Your task to perform on an android device: toggle show notifications on the lock screen Image 0: 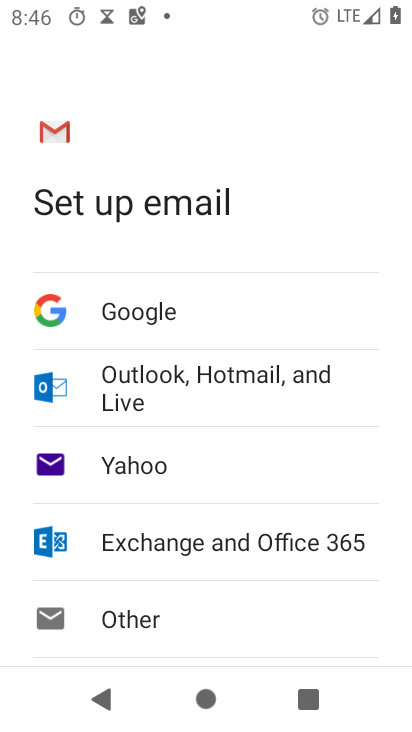
Step 0: press home button
Your task to perform on an android device: toggle show notifications on the lock screen Image 1: 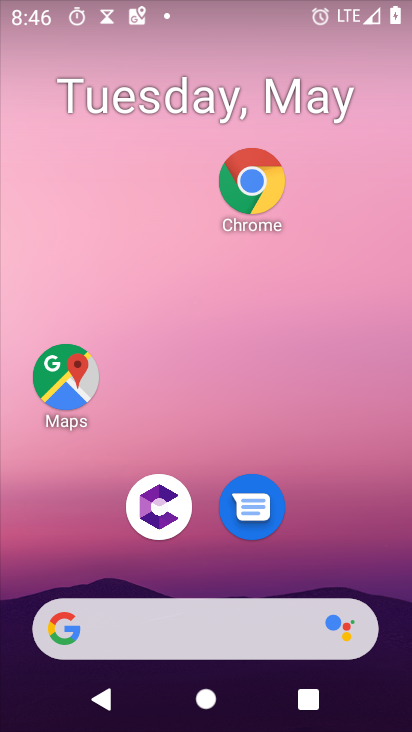
Step 1: drag from (311, 526) to (305, 72)
Your task to perform on an android device: toggle show notifications on the lock screen Image 2: 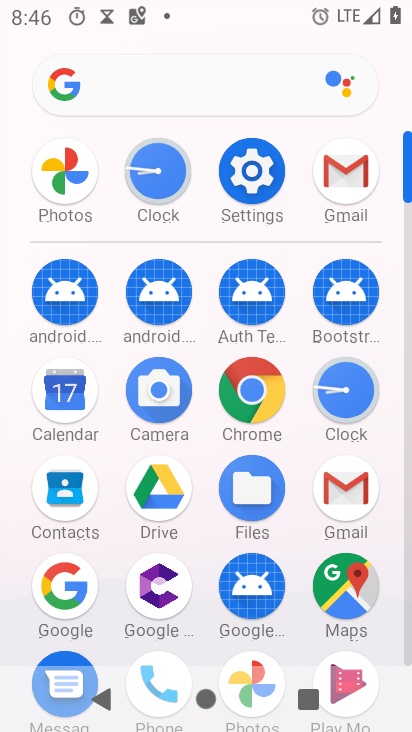
Step 2: click (234, 179)
Your task to perform on an android device: toggle show notifications on the lock screen Image 3: 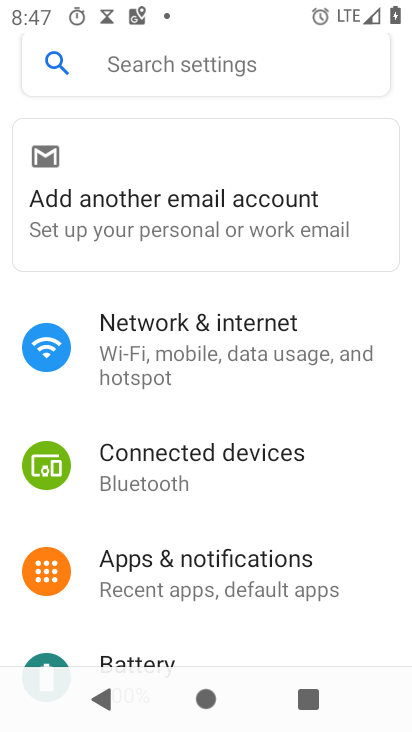
Step 3: click (168, 583)
Your task to perform on an android device: toggle show notifications on the lock screen Image 4: 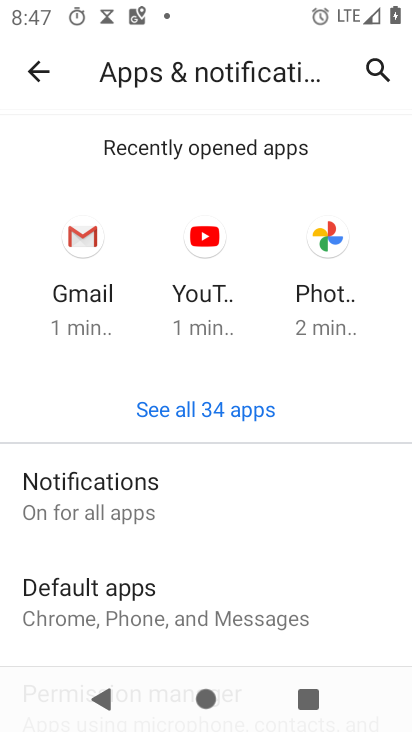
Step 4: click (188, 516)
Your task to perform on an android device: toggle show notifications on the lock screen Image 5: 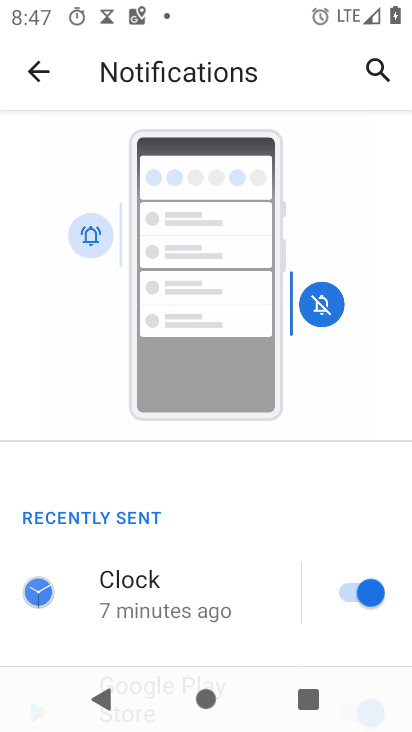
Step 5: drag from (204, 604) to (263, 194)
Your task to perform on an android device: toggle show notifications on the lock screen Image 6: 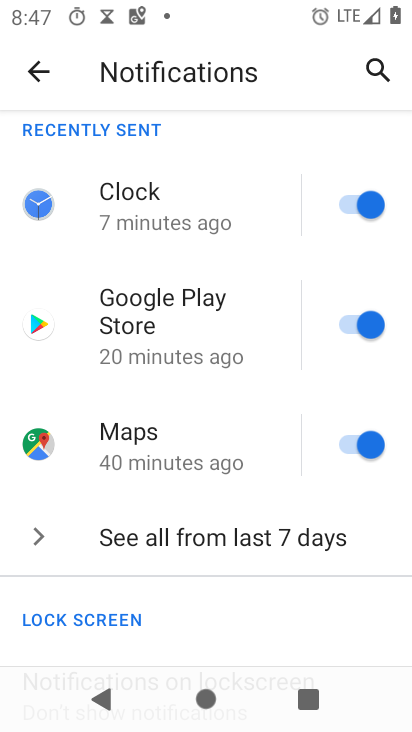
Step 6: drag from (187, 595) to (247, 222)
Your task to perform on an android device: toggle show notifications on the lock screen Image 7: 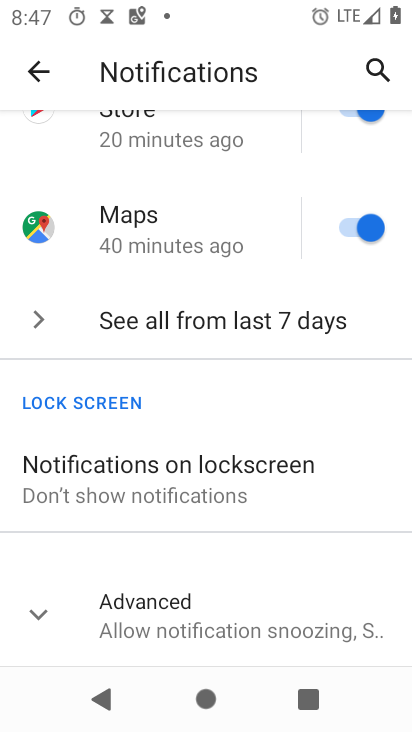
Step 7: click (205, 452)
Your task to perform on an android device: toggle show notifications on the lock screen Image 8: 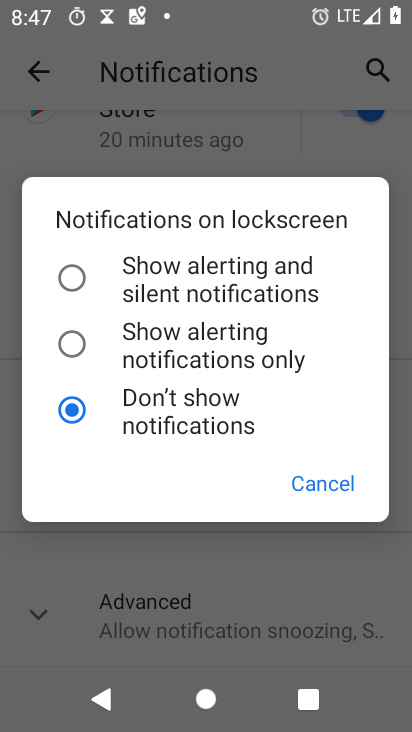
Step 8: click (229, 268)
Your task to perform on an android device: toggle show notifications on the lock screen Image 9: 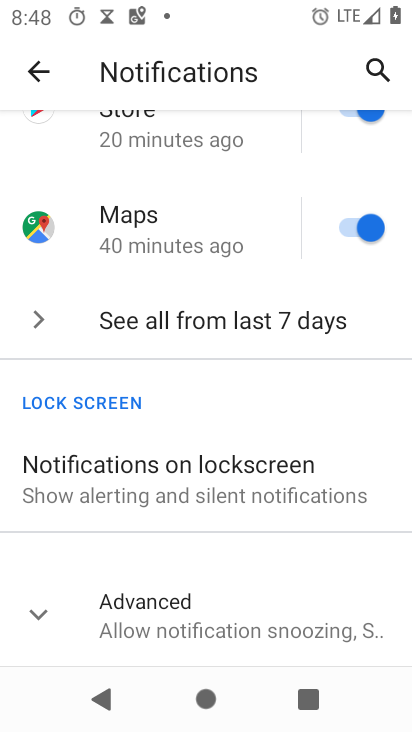
Step 9: task complete